Your task to perform on an android device: toggle data saver in the chrome app Image 0: 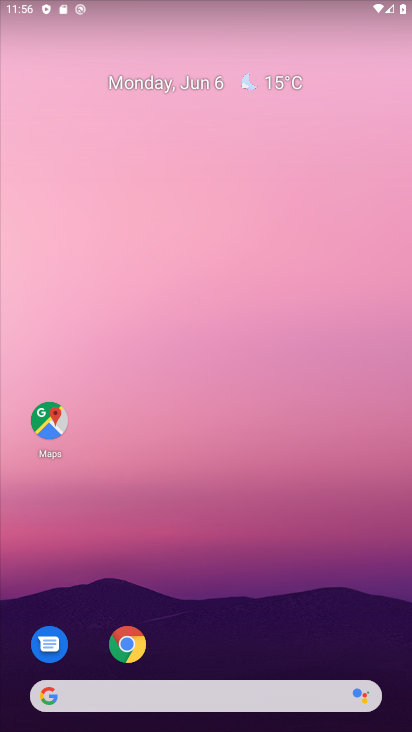
Step 0: click (126, 646)
Your task to perform on an android device: toggle data saver in the chrome app Image 1: 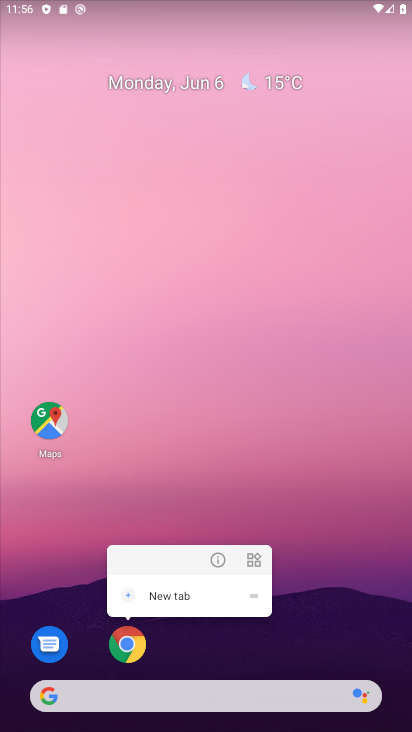
Step 1: click (129, 648)
Your task to perform on an android device: toggle data saver in the chrome app Image 2: 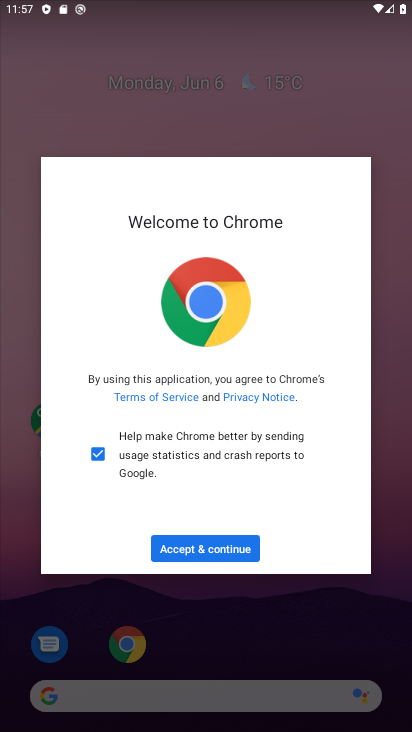
Step 2: click (236, 542)
Your task to perform on an android device: toggle data saver in the chrome app Image 3: 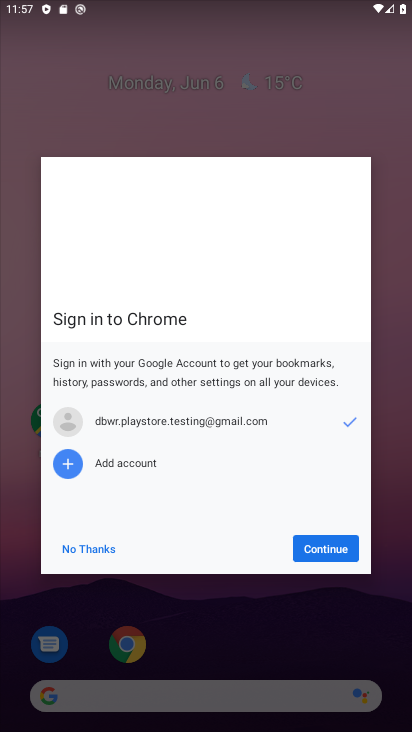
Step 3: click (334, 542)
Your task to perform on an android device: toggle data saver in the chrome app Image 4: 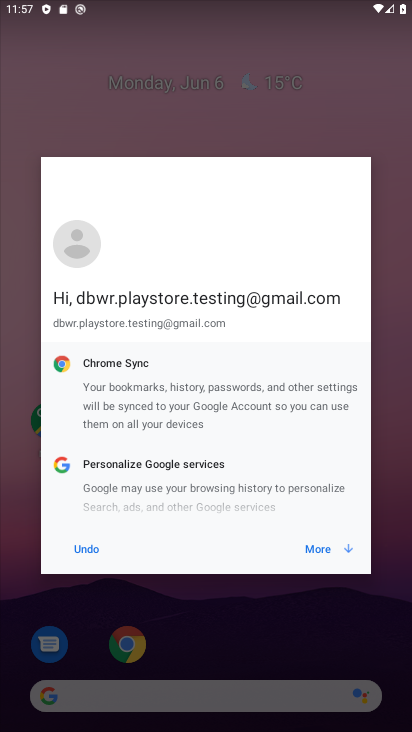
Step 4: click (329, 539)
Your task to perform on an android device: toggle data saver in the chrome app Image 5: 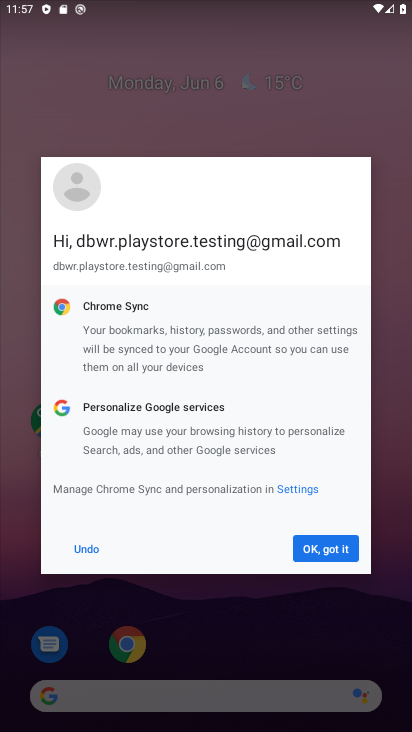
Step 5: click (329, 549)
Your task to perform on an android device: toggle data saver in the chrome app Image 6: 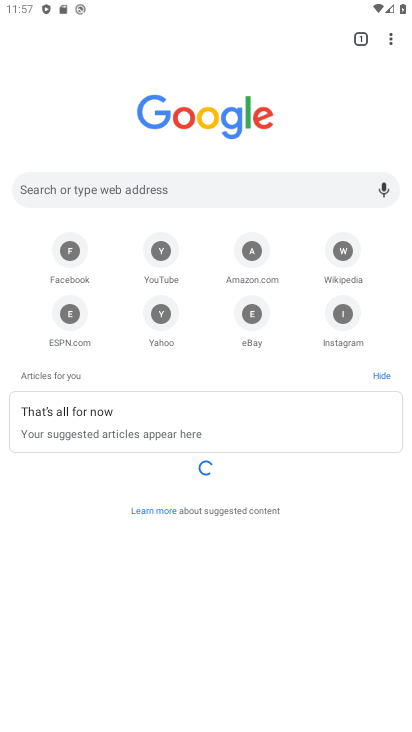
Step 6: drag from (392, 33) to (251, 323)
Your task to perform on an android device: toggle data saver in the chrome app Image 7: 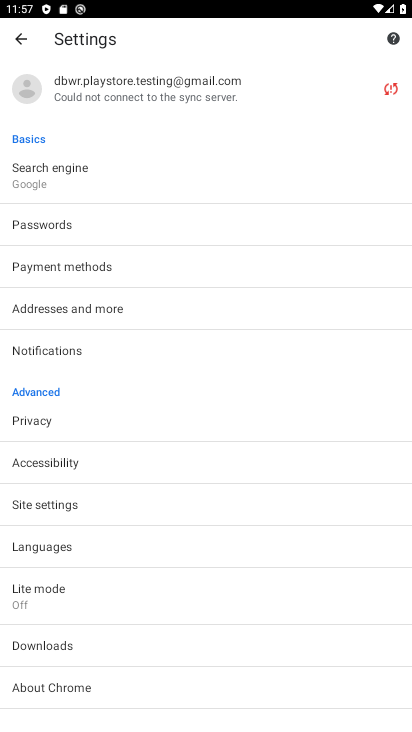
Step 7: click (72, 594)
Your task to perform on an android device: toggle data saver in the chrome app Image 8: 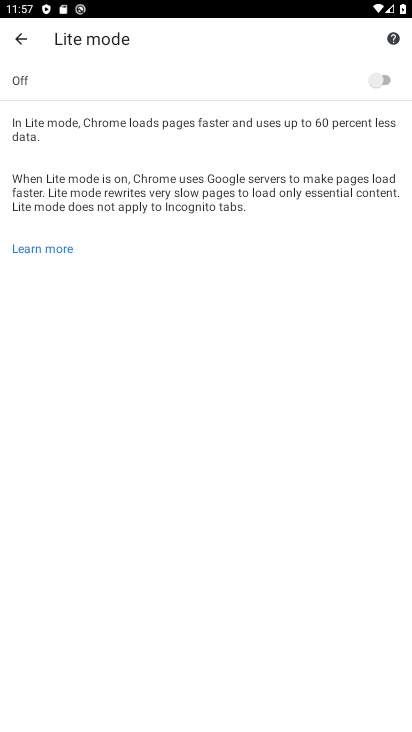
Step 8: click (376, 82)
Your task to perform on an android device: toggle data saver in the chrome app Image 9: 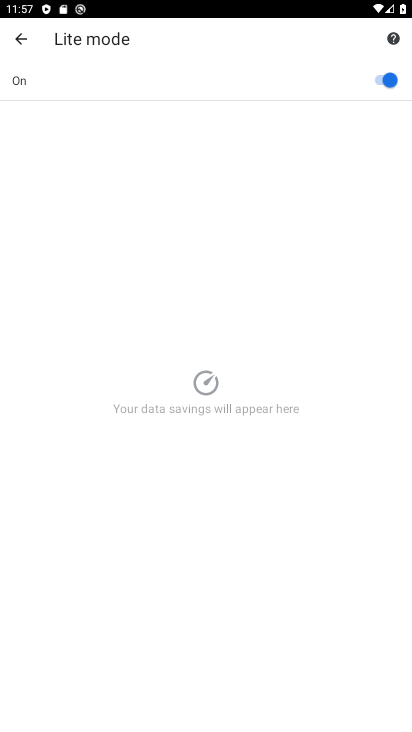
Step 9: task complete